Your task to perform on an android device: open app "Pandora - Music & Podcasts" (install if not already installed), go to login, and select forgot password Image 0: 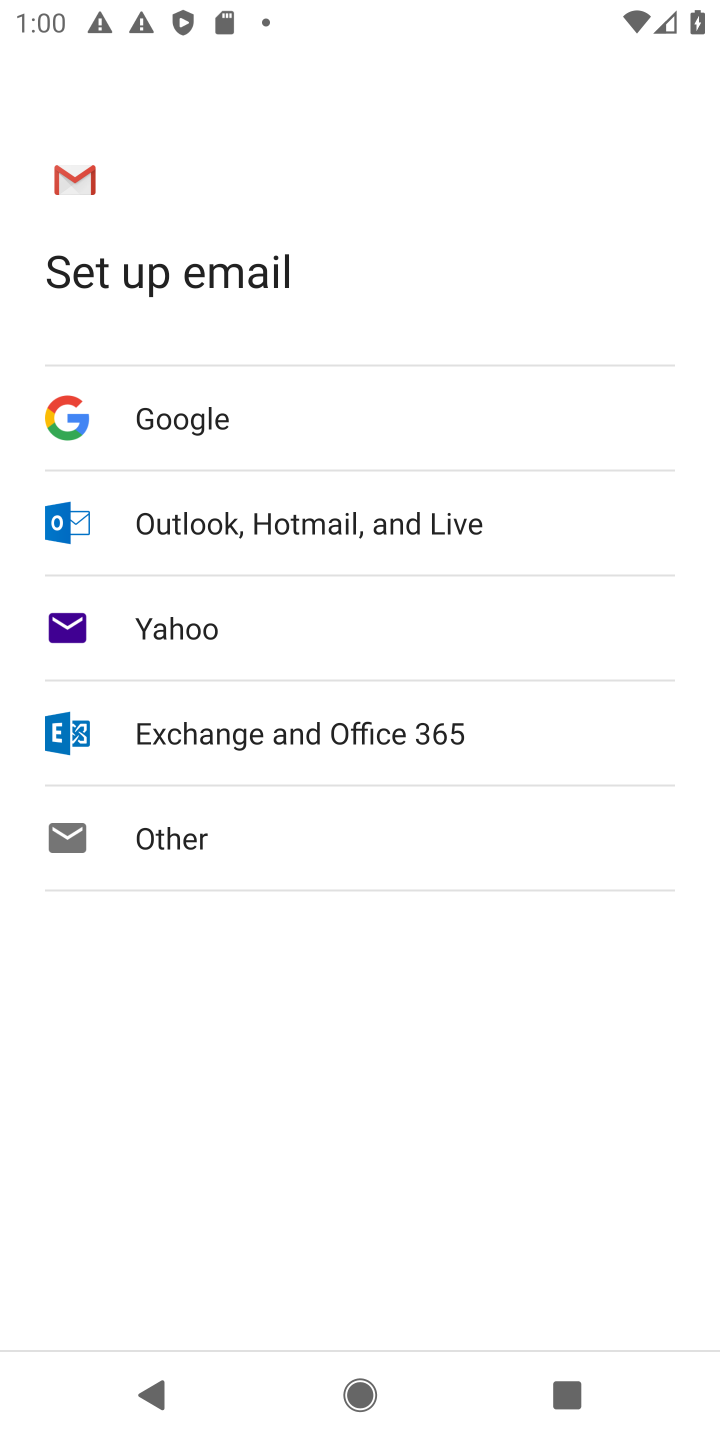
Step 0: press home button
Your task to perform on an android device: open app "Pandora - Music & Podcasts" (install if not already installed), go to login, and select forgot password Image 1: 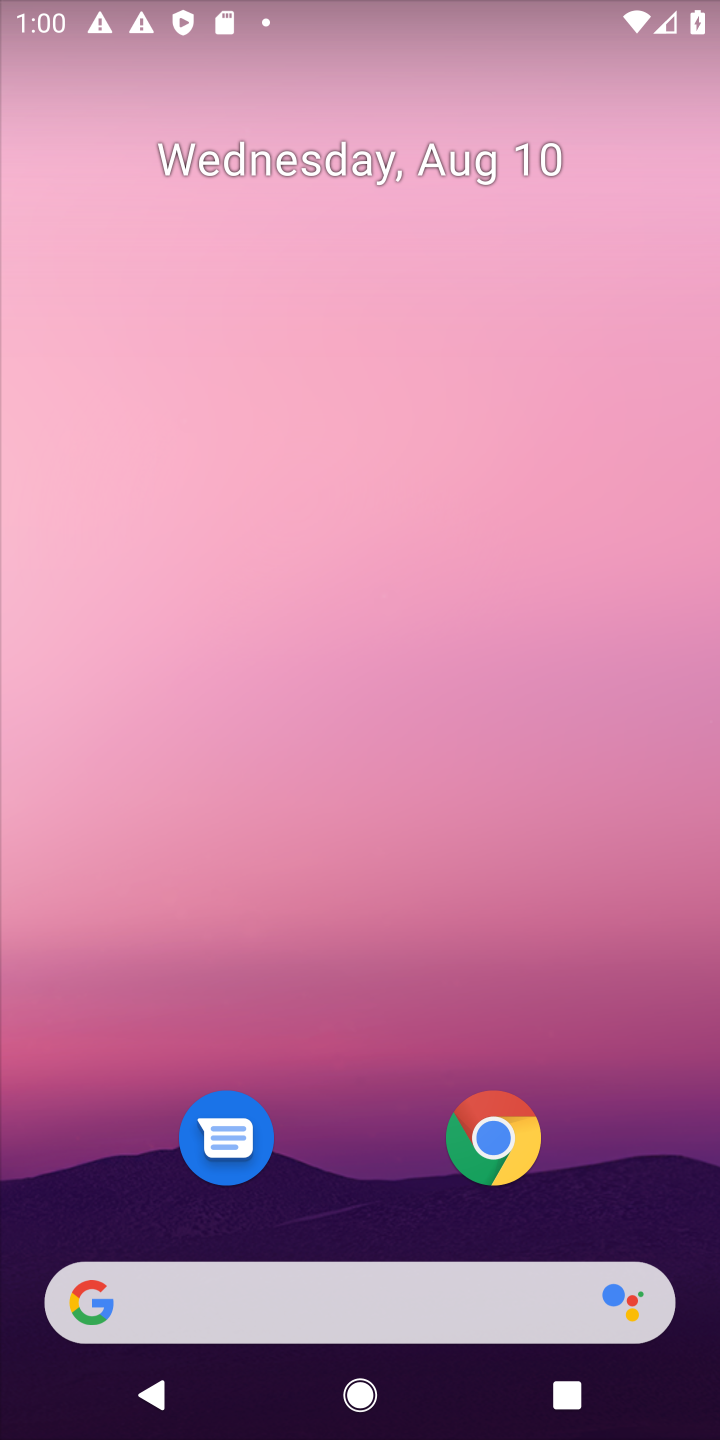
Step 1: drag from (610, 804) to (606, 73)
Your task to perform on an android device: open app "Pandora - Music & Podcasts" (install if not already installed), go to login, and select forgot password Image 2: 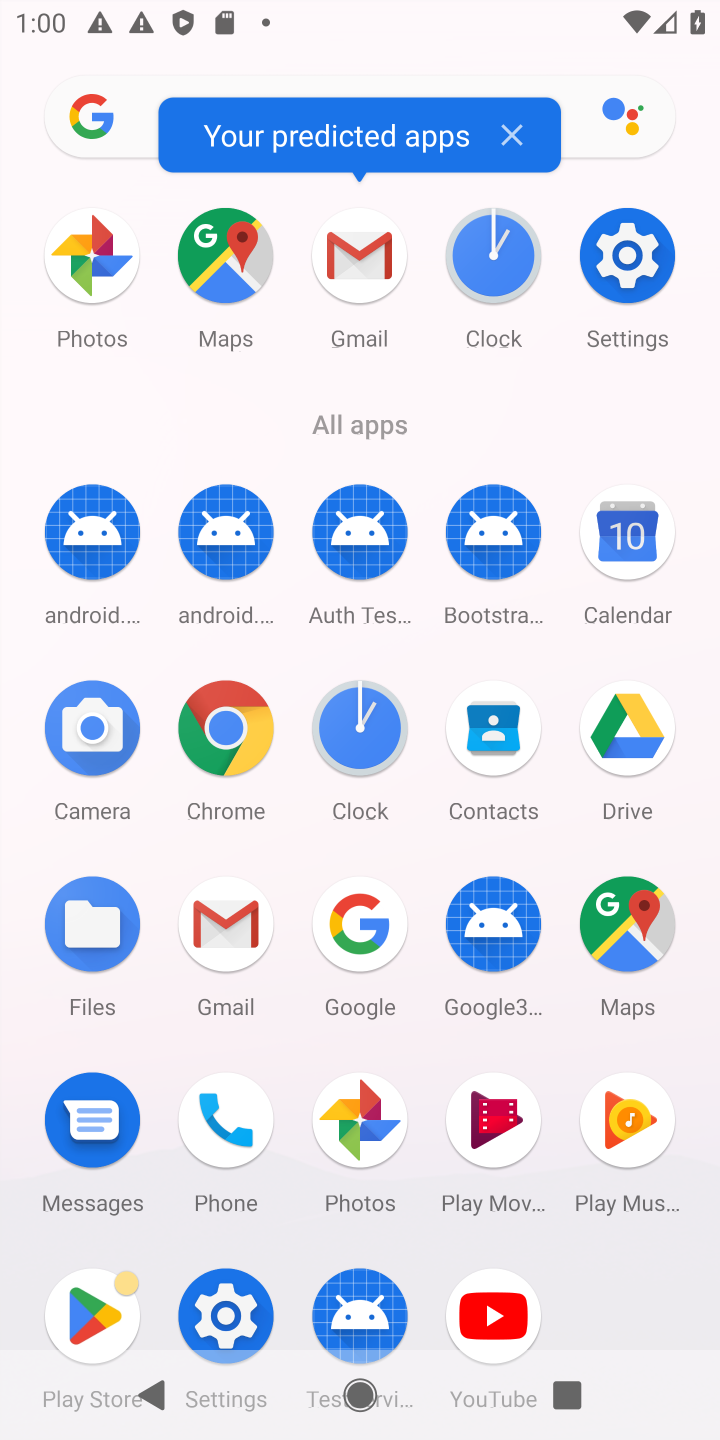
Step 2: drag from (662, 1229) to (669, 393)
Your task to perform on an android device: open app "Pandora - Music & Podcasts" (install if not already installed), go to login, and select forgot password Image 3: 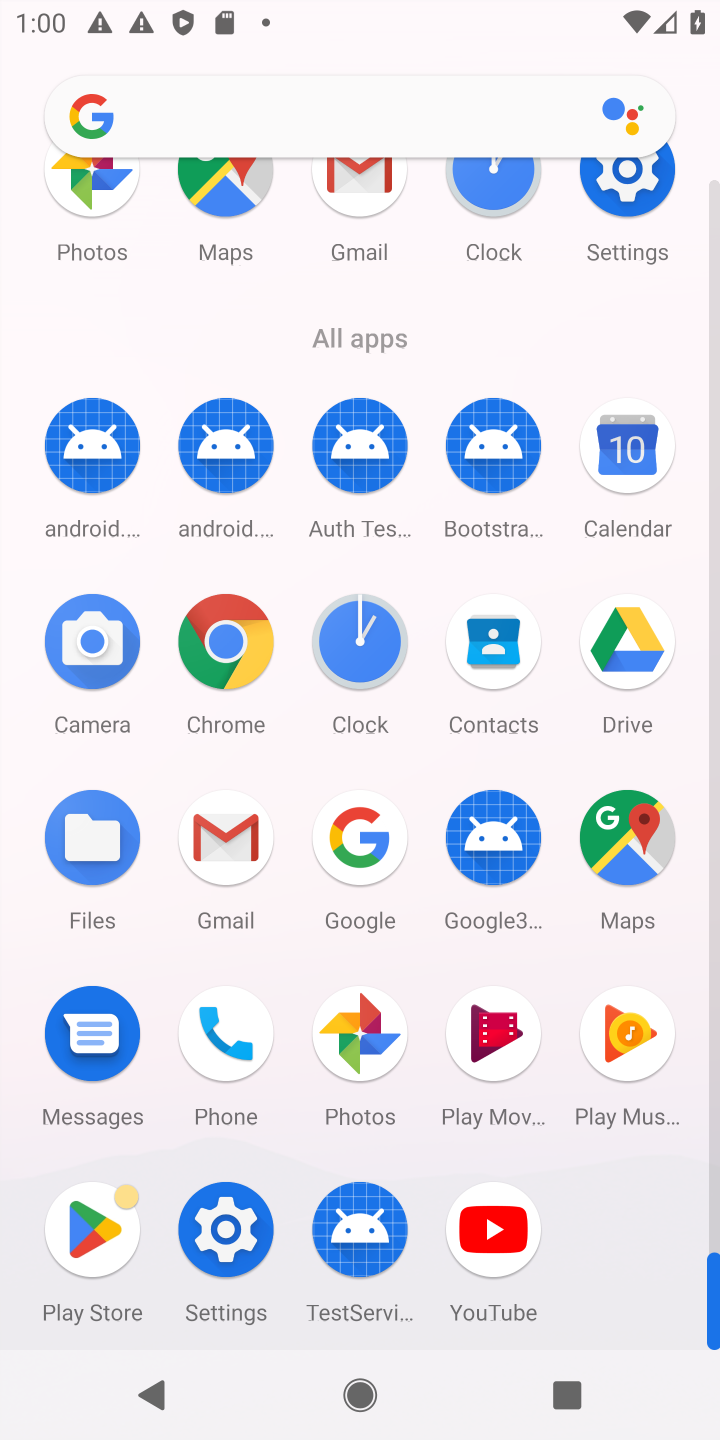
Step 3: click (89, 1235)
Your task to perform on an android device: open app "Pandora - Music & Podcasts" (install if not already installed), go to login, and select forgot password Image 4: 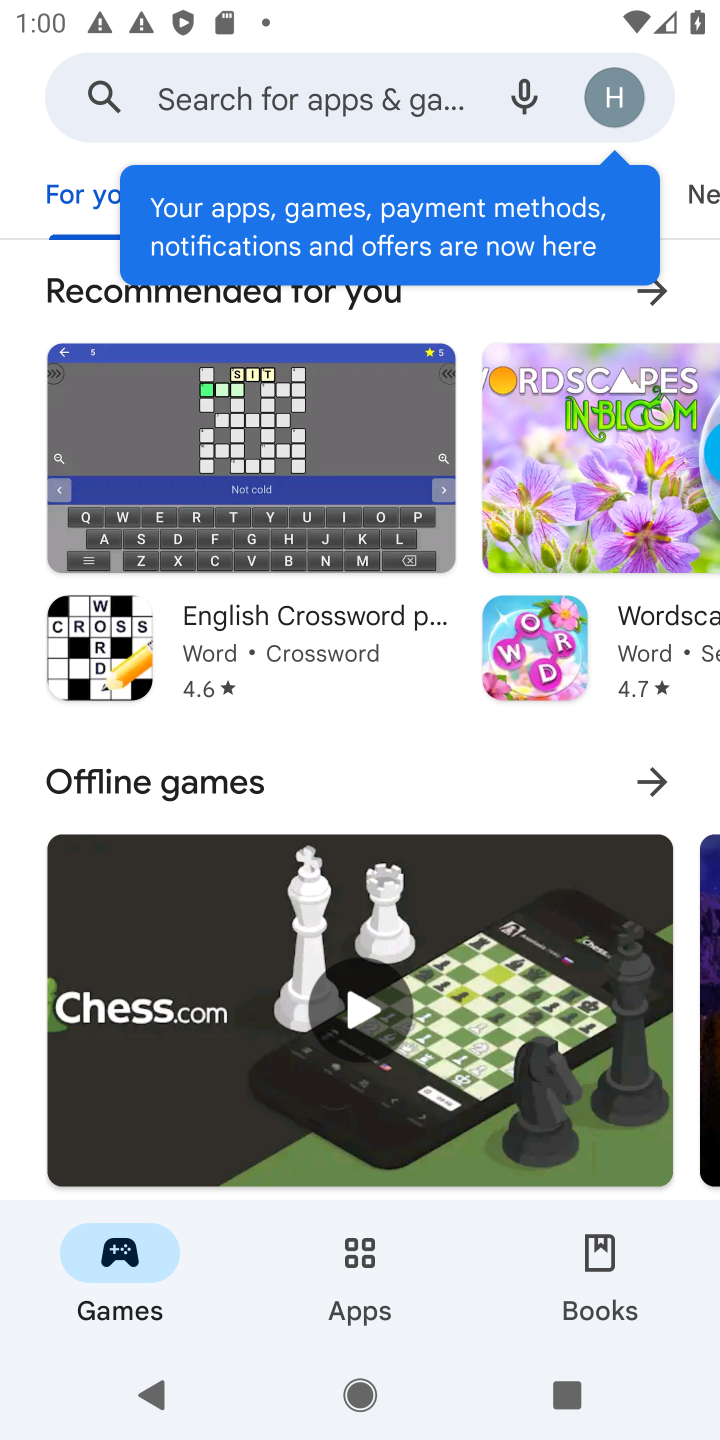
Step 4: click (375, 88)
Your task to perform on an android device: open app "Pandora - Music & Podcasts" (install if not already installed), go to login, and select forgot password Image 5: 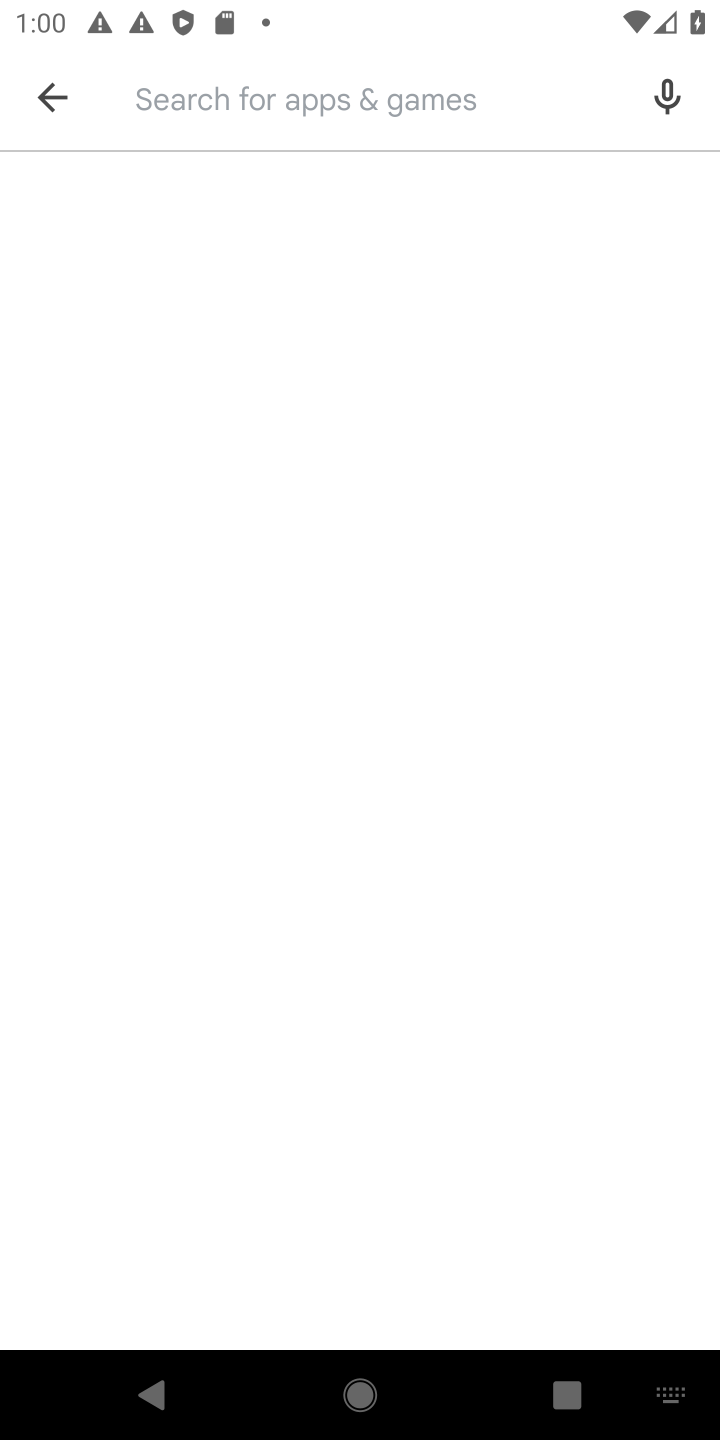
Step 5: press enter
Your task to perform on an android device: open app "Pandora - Music & Podcasts" (install if not already installed), go to login, and select forgot password Image 6: 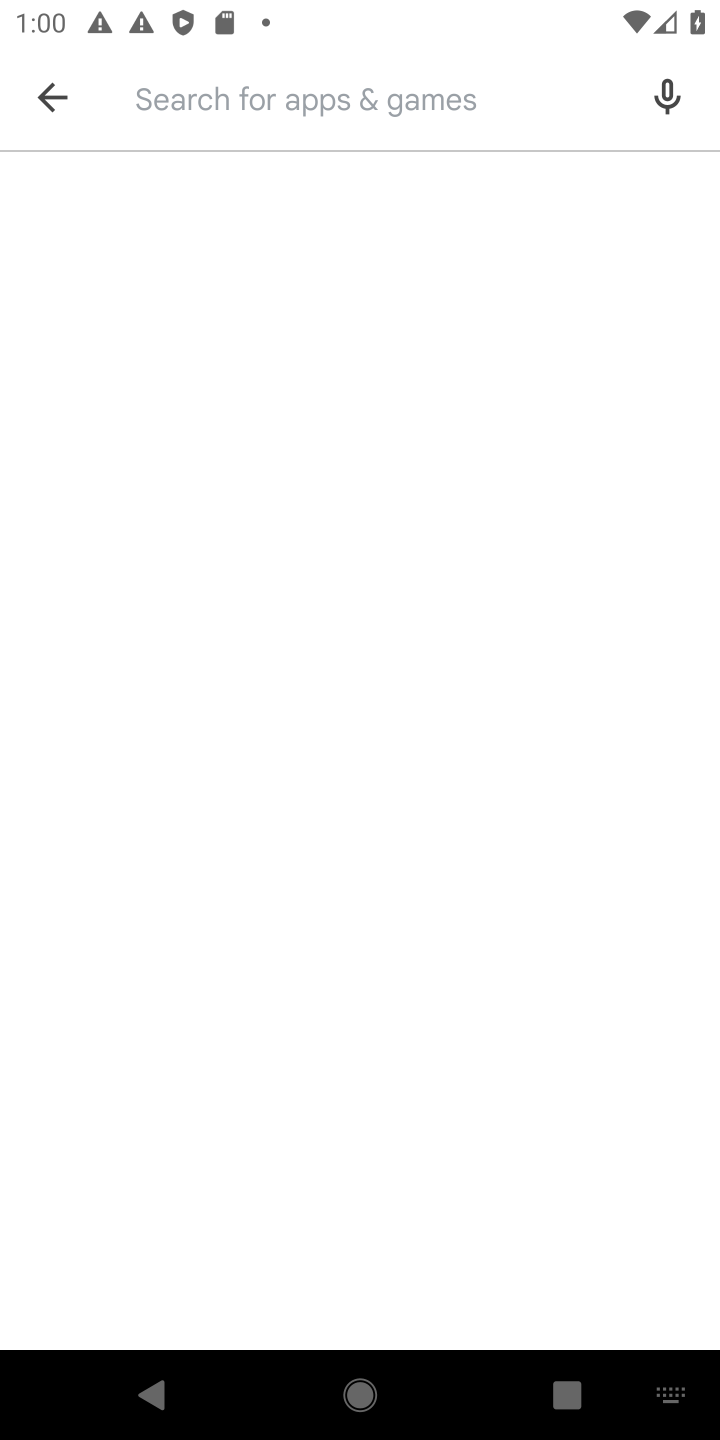
Step 6: type "Pandora - Music & Podcasts"
Your task to perform on an android device: open app "Pandora - Music & Podcasts" (install if not already installed), go to login, and select forgot password Image 7: 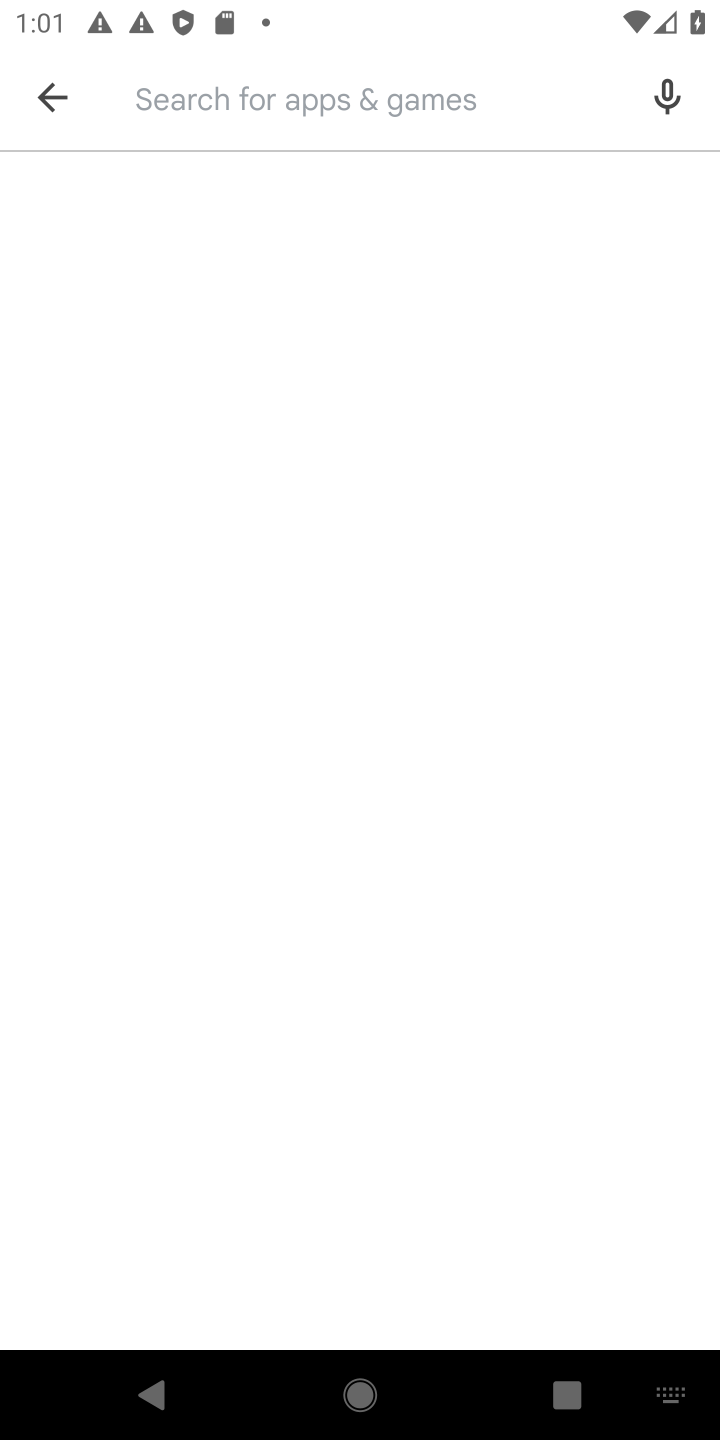
Step 7: click (180, 111)
Your task to perform on an android device: open app "Pandora - Music & Podcasts" (install if not already installed), go to login, and select forgot password Image 8: 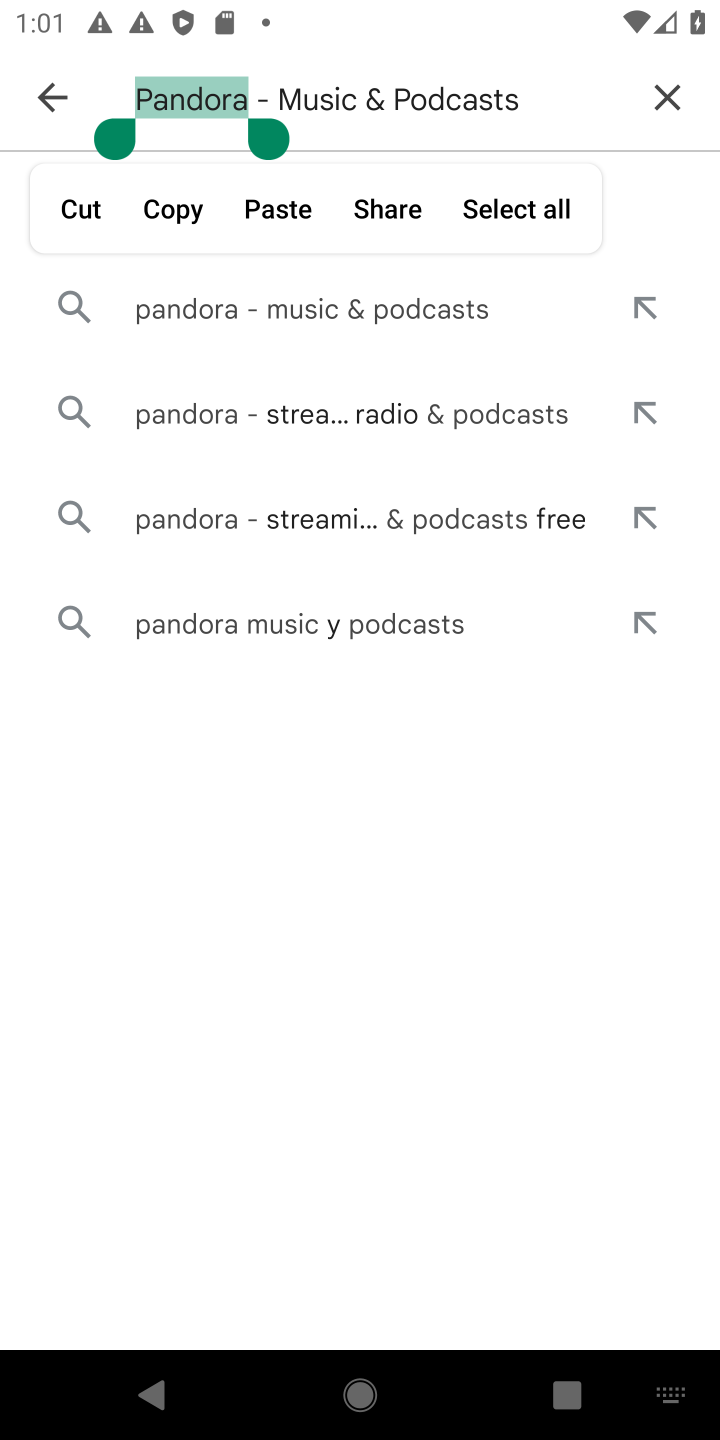
Step 8: click (415, 199)
Your task to perform on an android device: open app "Pandora - Music & Podcasts" (install if not already installed), go to login, and select forgot password Image 9: 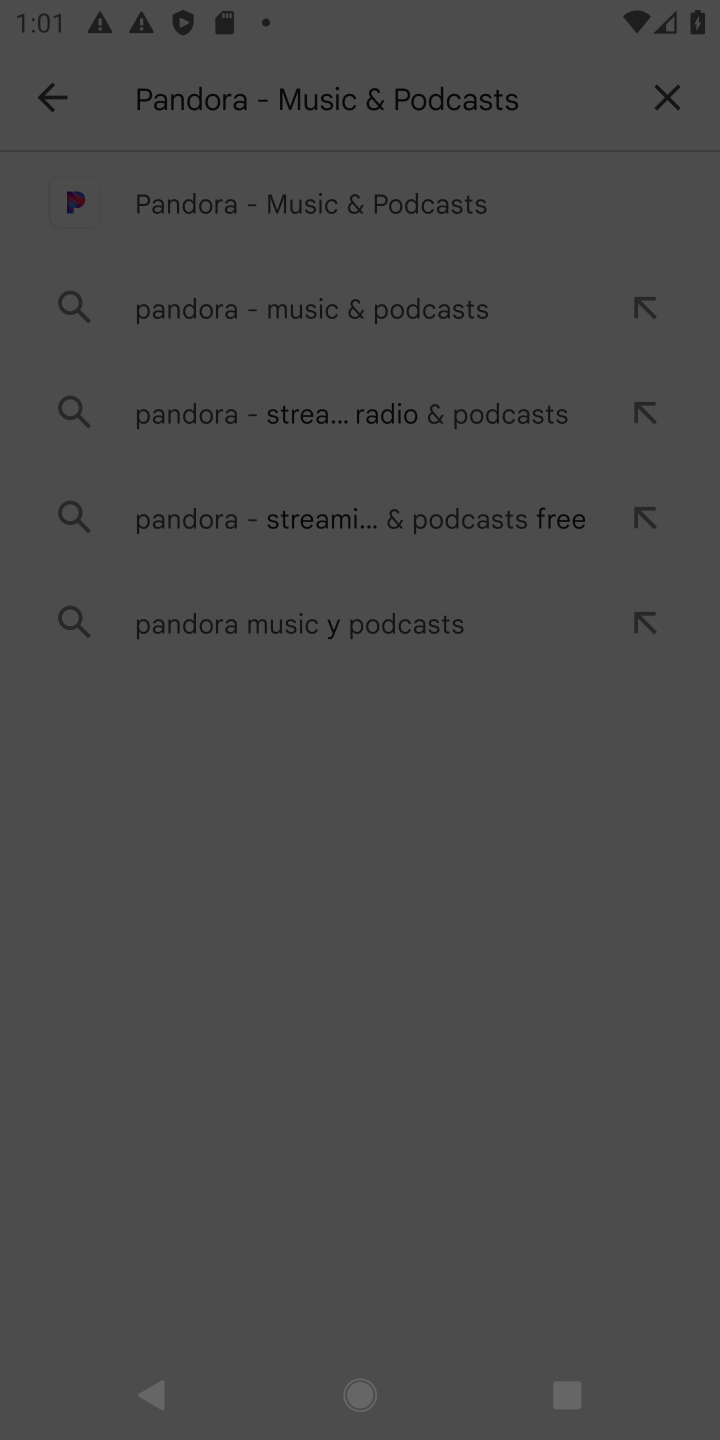
Step 9: click (441, 196)
Your task to perform on an android device: open app "Pandora - Music & Podcasts" (install if not already installed), go to login, and select forgot password Image 10: 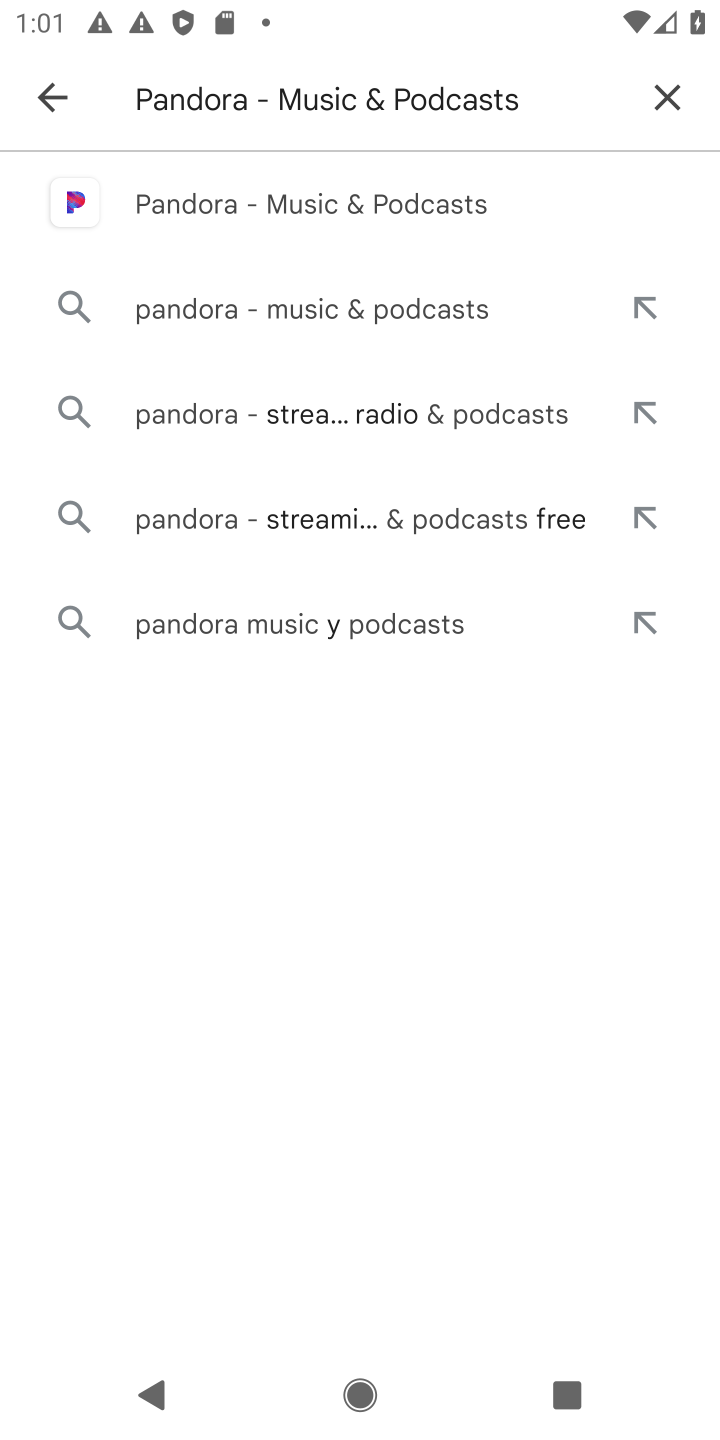
Step 10: click (312, 195)
Your task to perform on an android device: open app "Pandora - Music & Podcasts" (install if not already installed), go to login, and select forgot password Image 11: 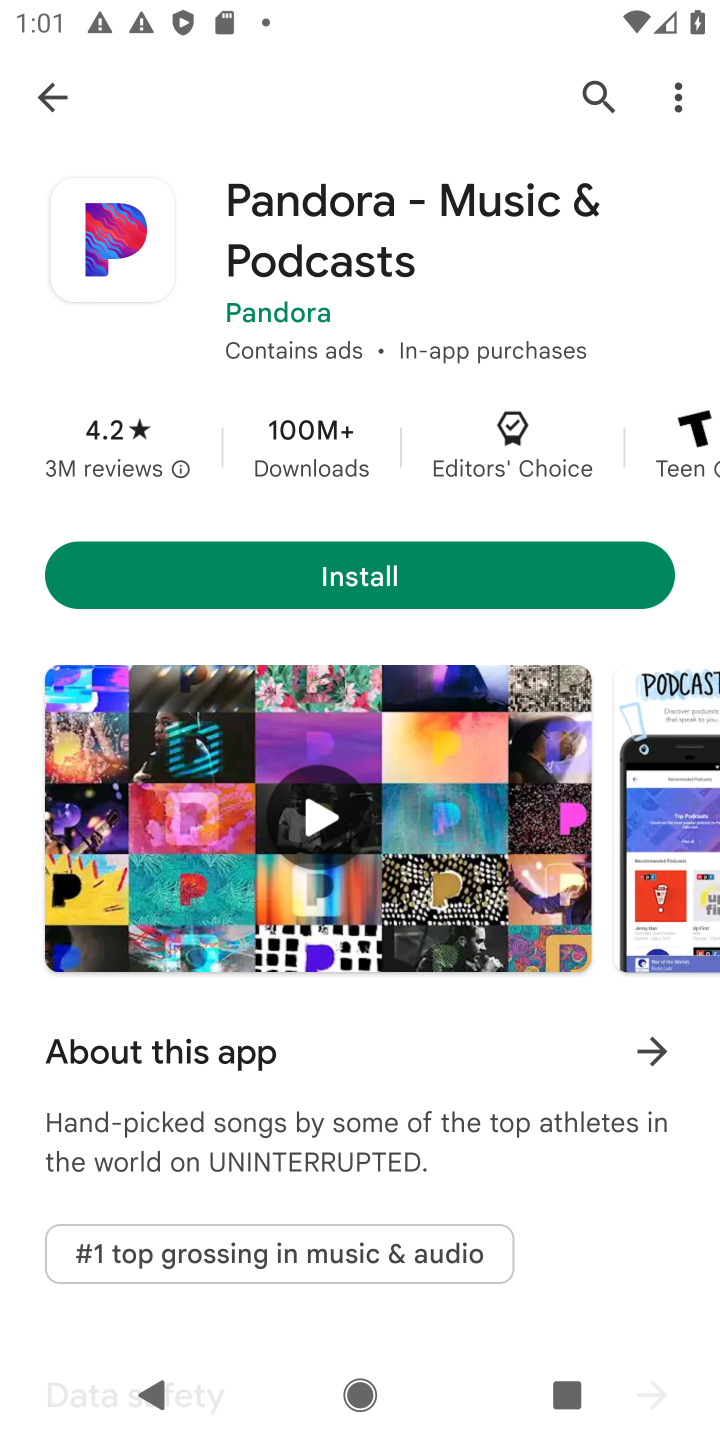
Step 11: click (397, 573)
Your task to perform on an android device: open app "Pandora - Music & Podcasts" (install if not already installed), go to login, and select forgot password Image 12: 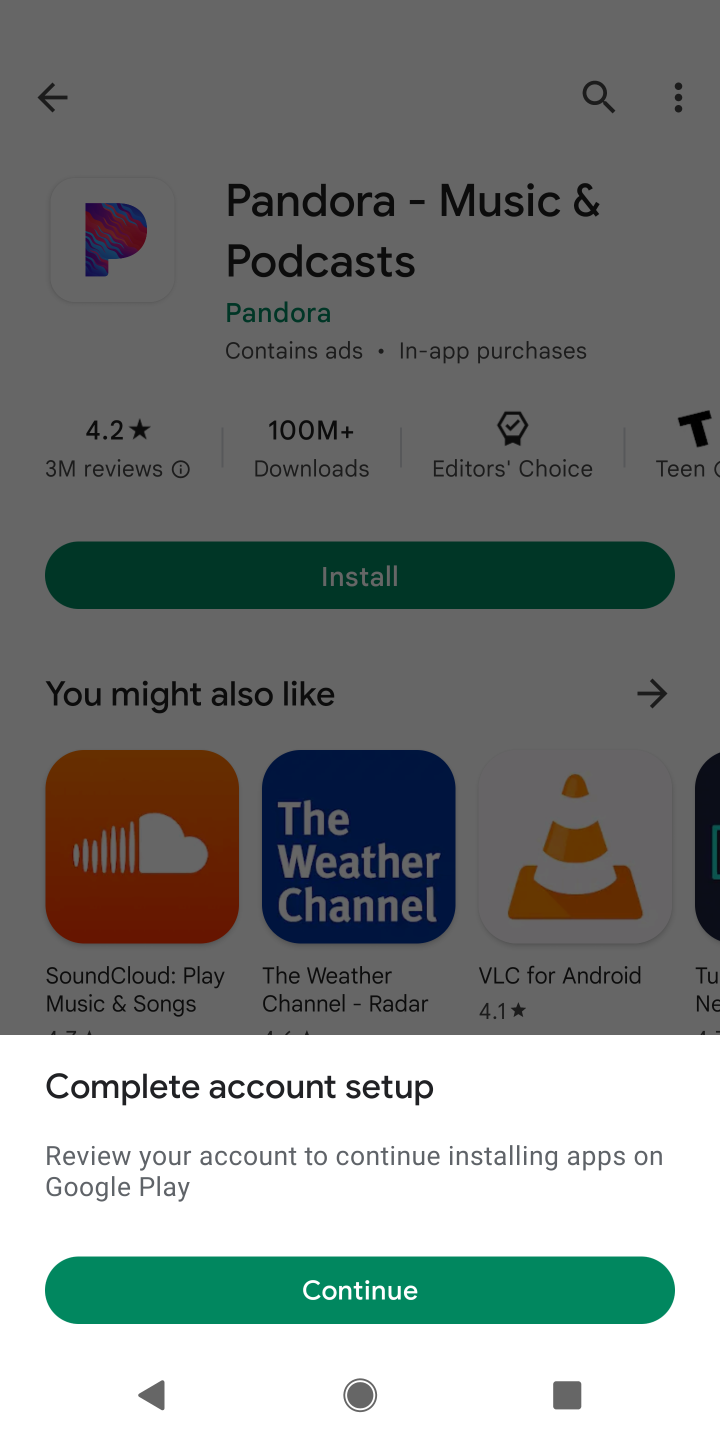
Step 12: click (422, 1278)
Your task to perform on an android device: open app "Pandora - Music & Podcasts" (install if not already installed), go to login, and select forgot password Image 13: 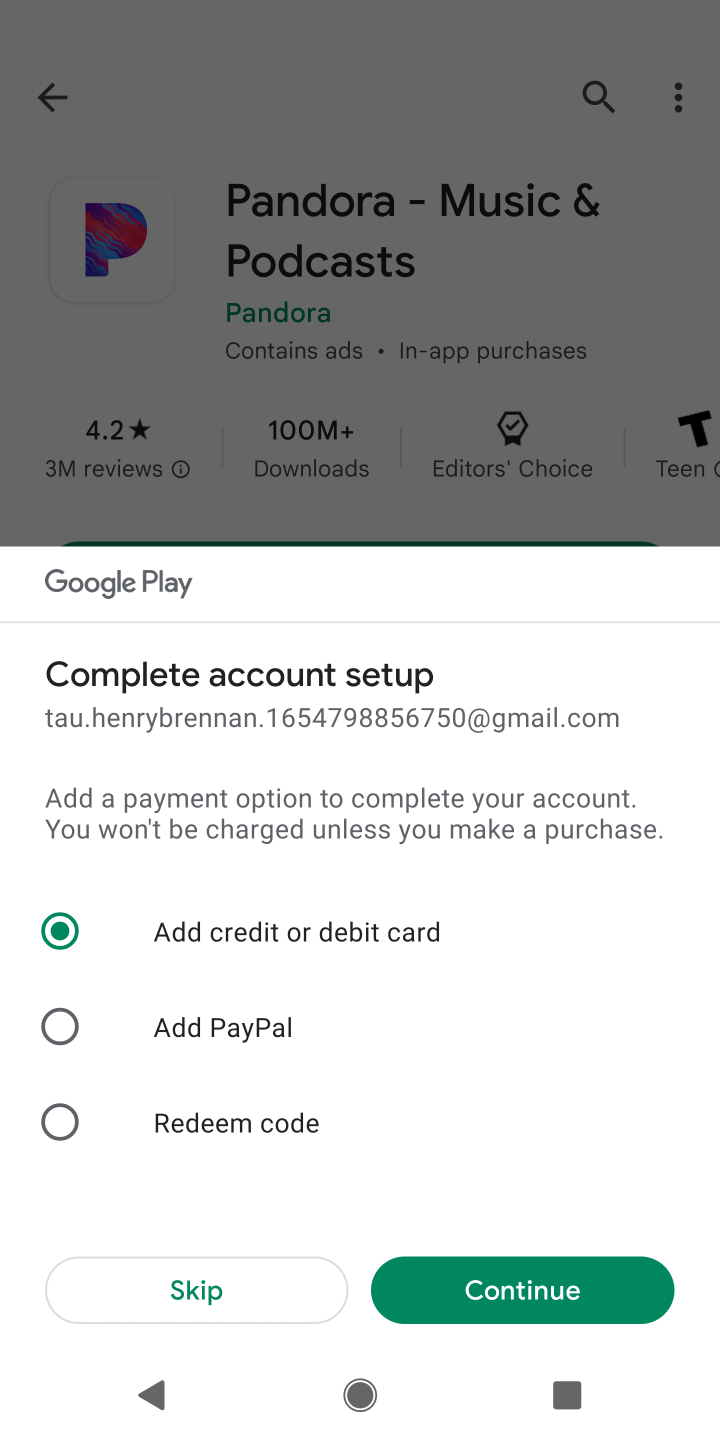
Step 13: click (145, 1286)
Your task to perform on an android device: open app "Pandora - Music & Podcasts" (install if not already installed), go to login, and select forgot password Image 14: 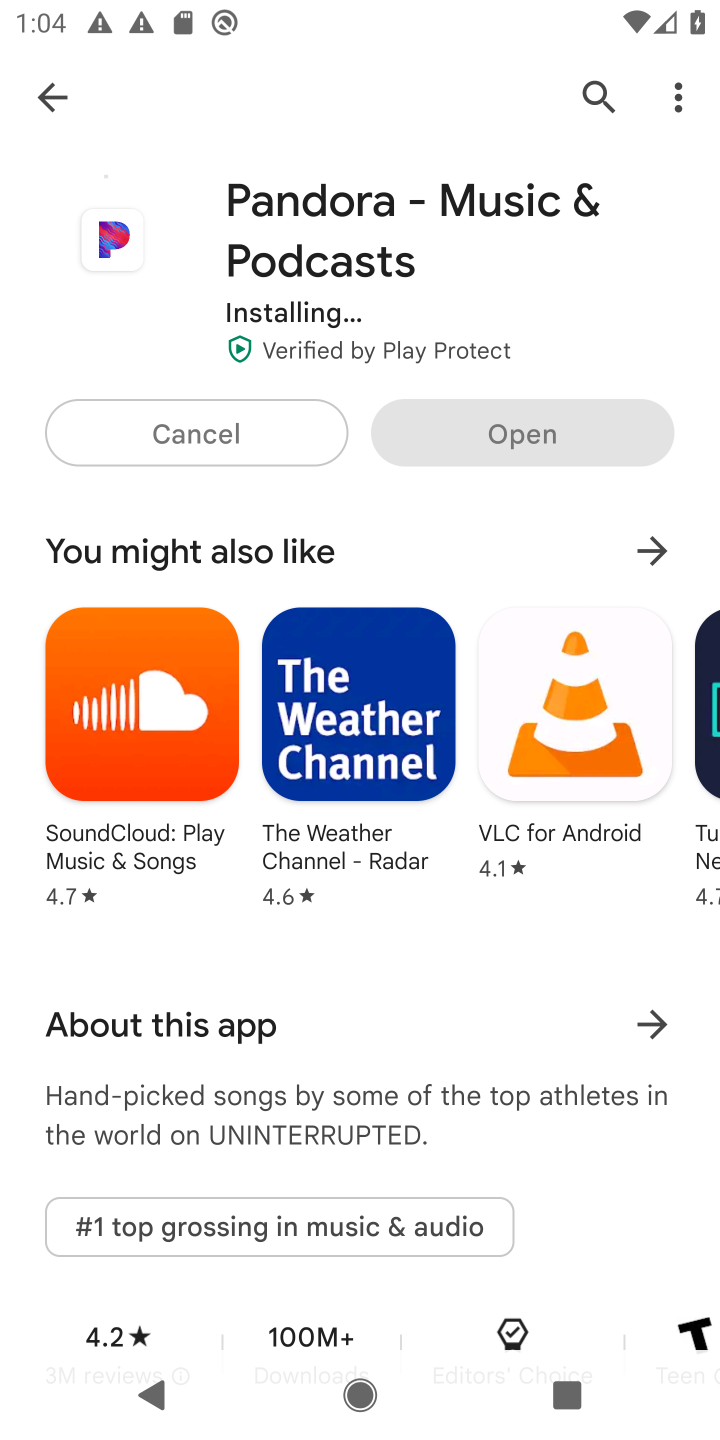
Step 14: task complete